Your task to perform on an android device: move a message to another label in the gmail app Image 0: 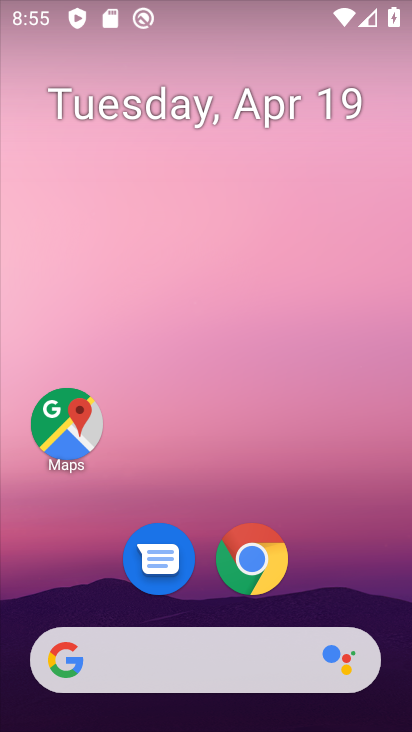
Step 0: drag from (360, 549) to (170, 190)
Your task to perform on an android device: move a message to another label in the gmail app Image 1: 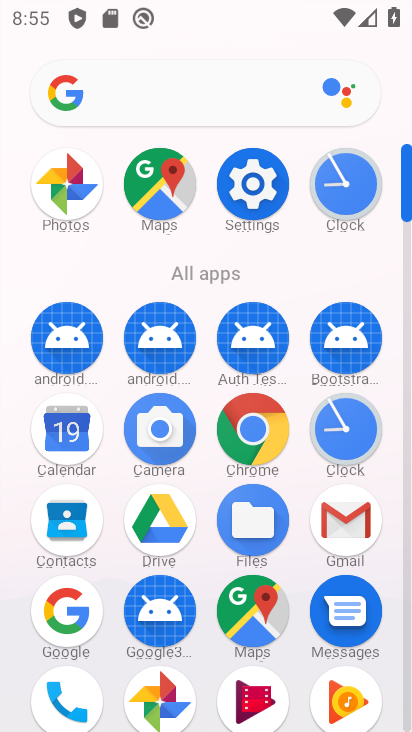
Step 1: click (358, 524)
Your task to perform on an android device: move a message to another label in the gmail app Image 2: 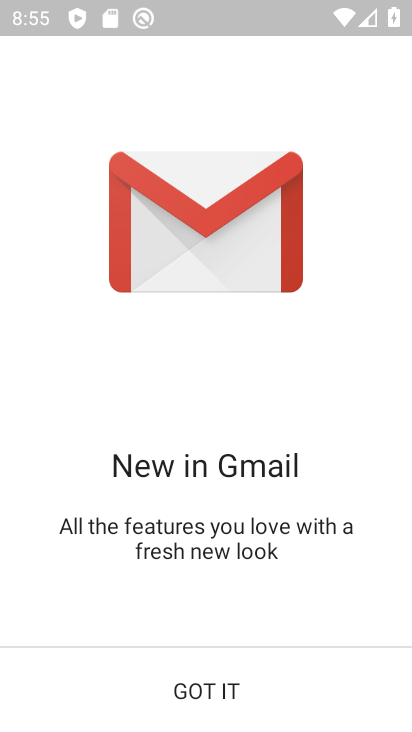
Step 2: click (200, 689)
Your task to perform on an android device: move a message to another label in the gmail app Image 3: 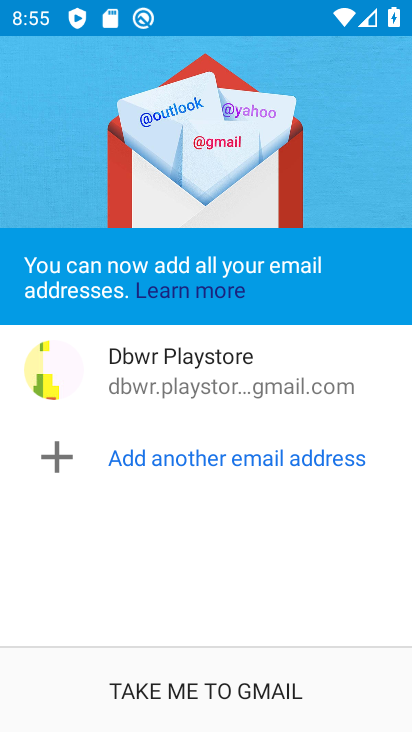
Step 3: click (202, 692)
Your task to perform on an android device: move a message to another label in the gmail app Image 4: 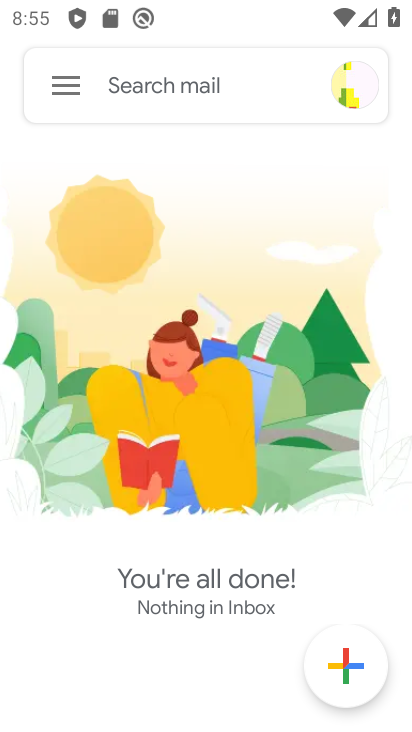
Step 4: click (54, 94)
Your task to perform on an android device: move a message to another label in the gmail app Image 5: 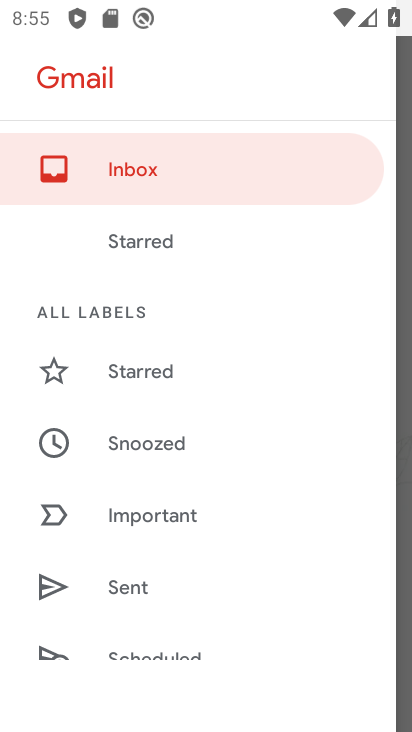
Step 5: click (96, 166)
Your task to perform on an android device: move a message to another label in the gmail app Image 6: 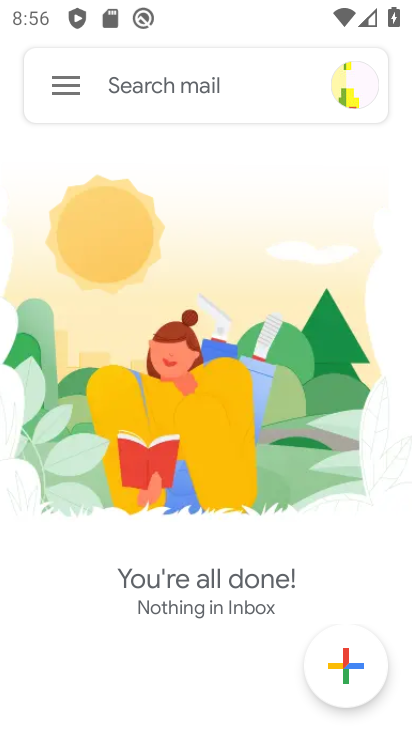
Step 6: click (120, 196)
Your task to perform on an android device: move a message to another label in the gmail app Image 7: 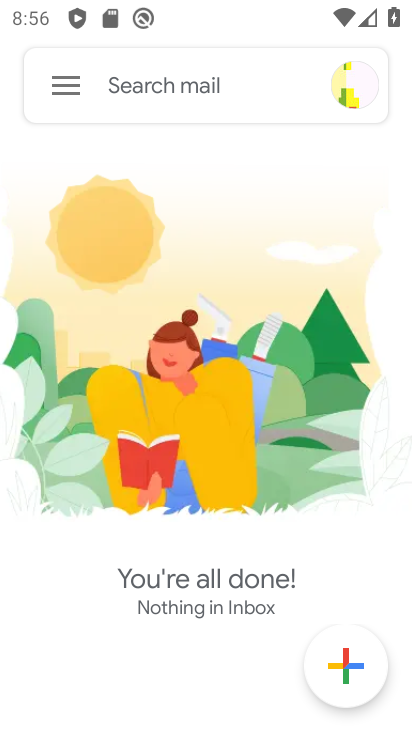
Step 7: task complete